Your task to perform on an android device: Go to network settings Image 0: 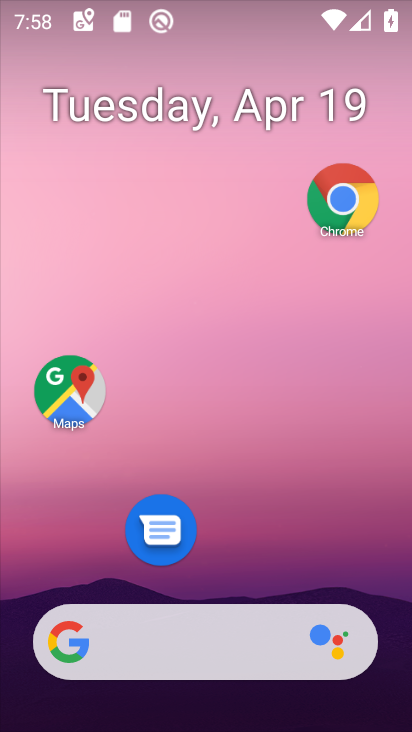
Step 0: drag from (177, 577) to (327, 167)
Your task to perform on an android device: Go to network settings Image 1: 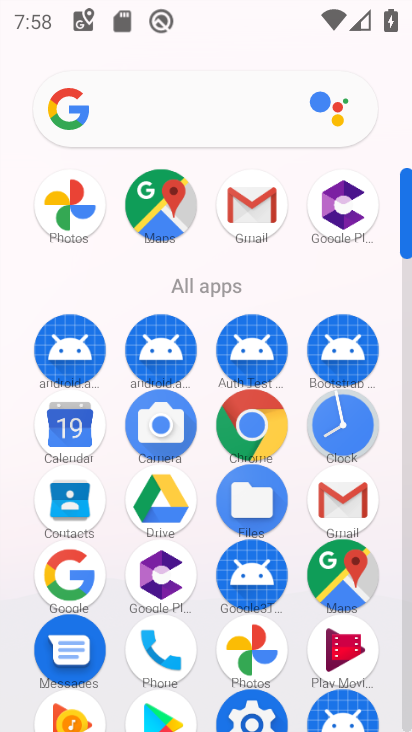
Step 1: click (247, 703)
Your task to perform on an android device: Go to network settings Image 2: 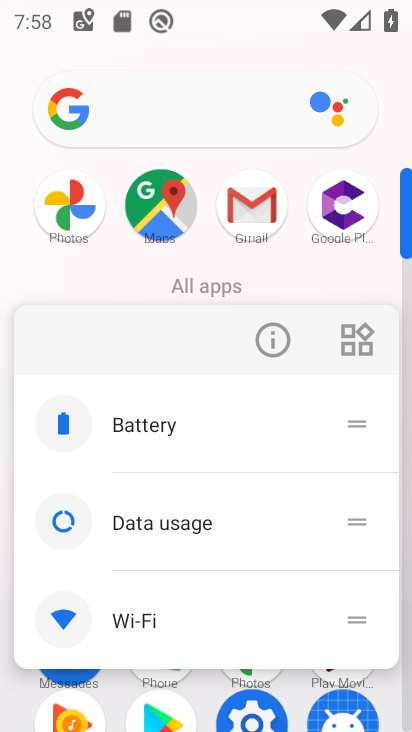
Step 2: click (267, 354)
Your task to perform on an android device: Go to network settings Image 3: 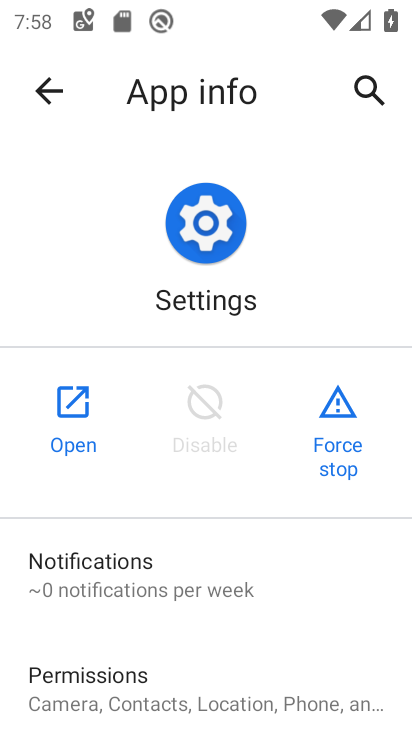
Step 3: click (28, 408)
Your task to perform on an android device: Go to network settings Image 4: 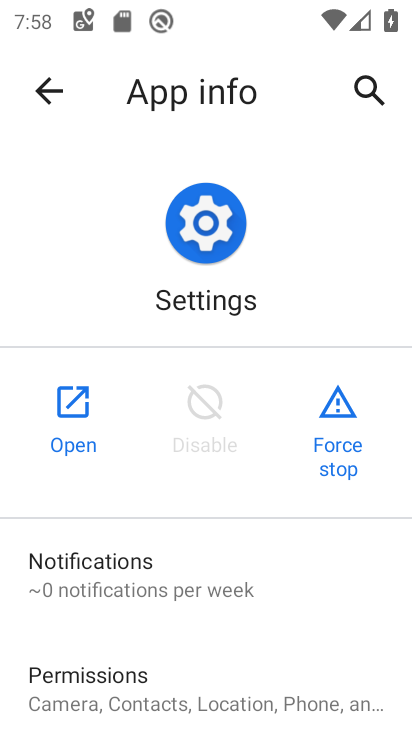
Step 4: click (57, 399)
Your task to perform on an android device: Go to network settings Image 5: 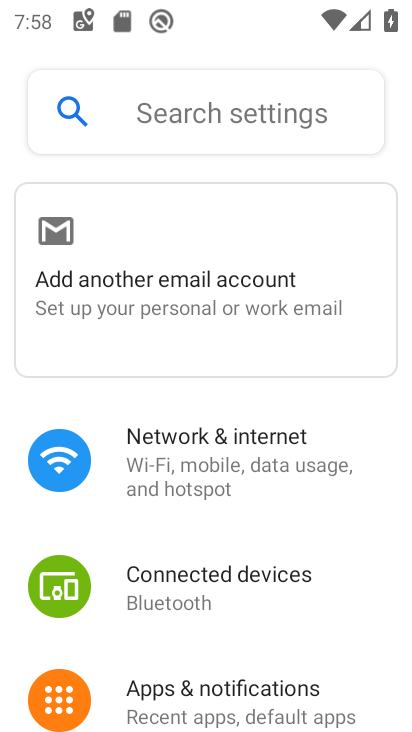
Step 5: click (228, 496)
Your task to perform on an android device: Go to network settings Image 6: 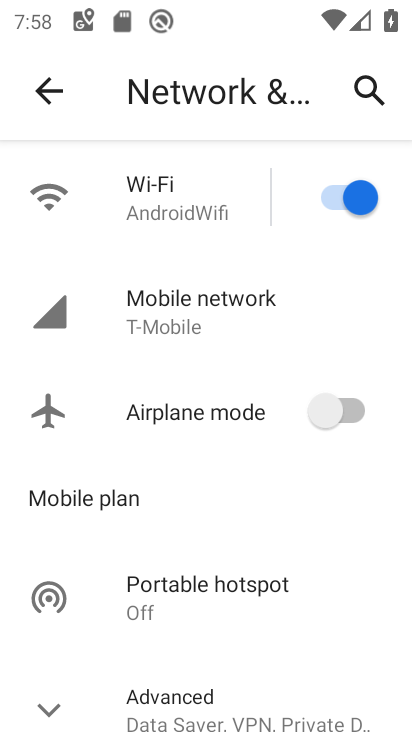
Step 6: click (200, 326)
Your task to perform on an android device: Go to network settings Image 7: 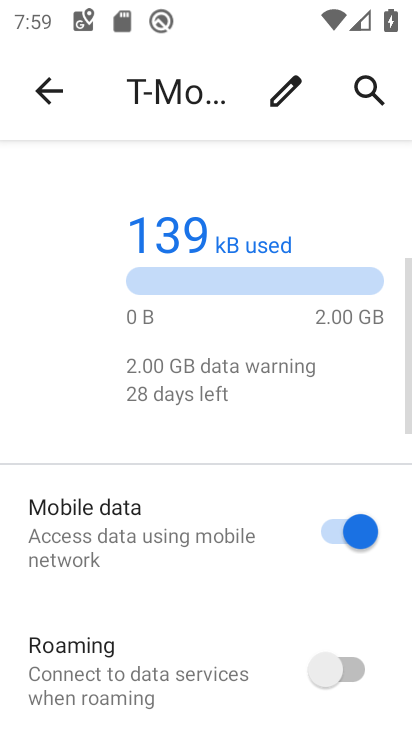
Step 7: task complete